Your task to perform on an android device: turn off improve location accuracy Image 0: 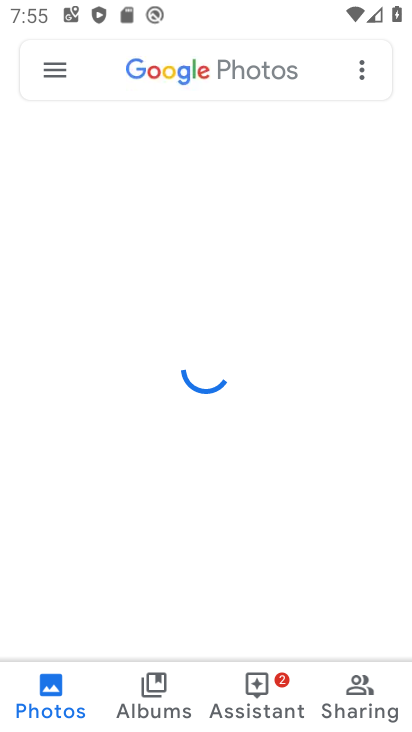
Step 0: press back button
Your task to perform on an android device: turn off improve location accuracy Image 1: 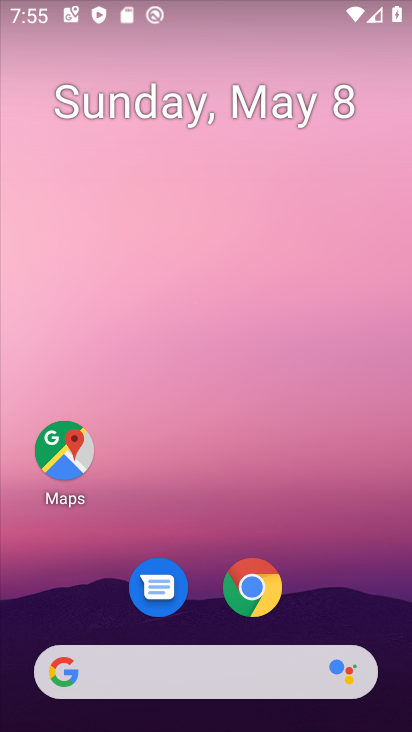
Step 1: drag from (205, 535) to (229, 84)
Your task to perform on an android device: turn off improve location accuracy Image 2: 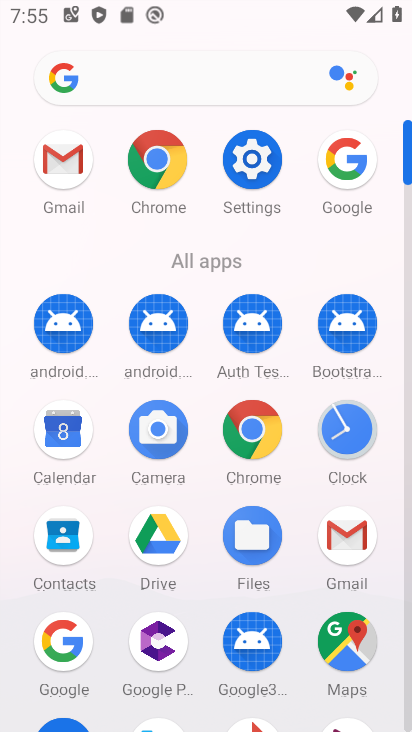
Step 2: click (255, 157)
Your task to perform on an android device: turn off improve location accuracy Image 3: 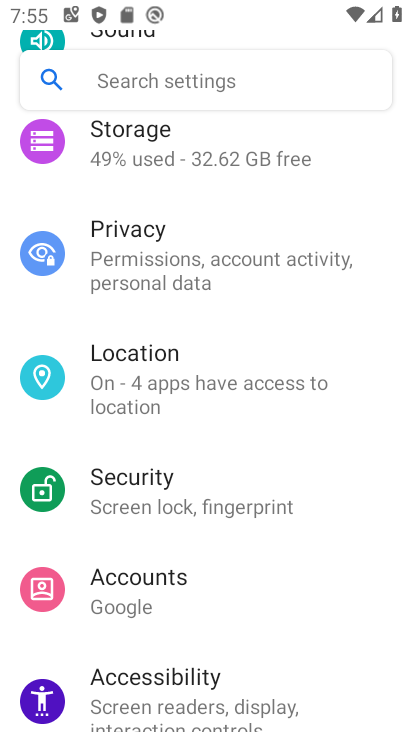
Step 3: click (156, 356)
Your task to perform on an android device: turn off improve location accuracy Image 4: 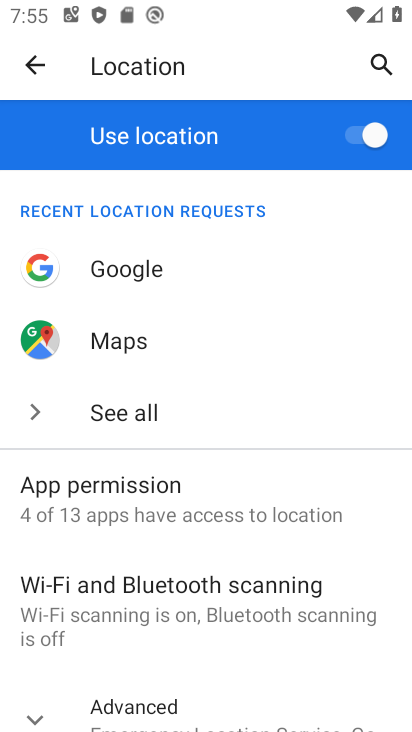
Step 4: drag from (223, 538) to (260, 440)
Your task to perform on an android device: turn off improve location accuracy Image 5: 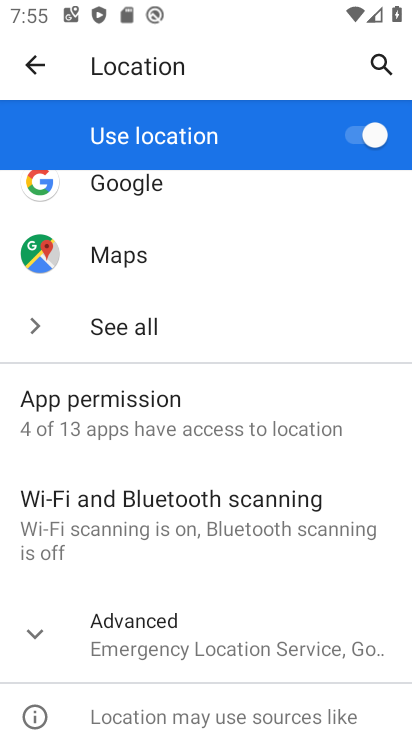
Step 5: click (161, 653)
Your task to perform on an android device: turn off improve location accuracy Image 6: 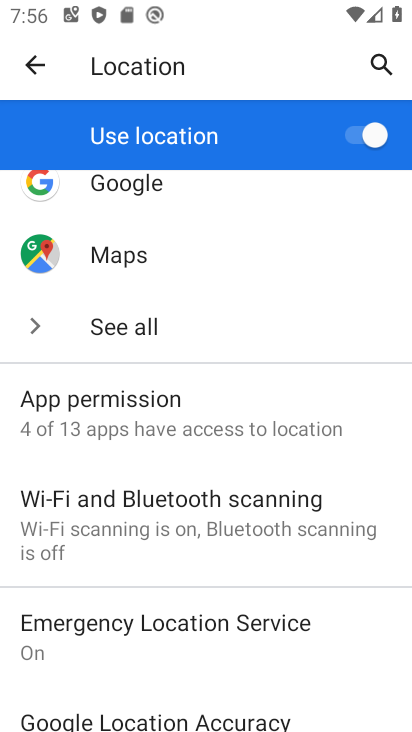
Step 6: drag from (185, 631) to (261, 500)
Your task to perform on an android device: turn off improve location accuracy Image 7: 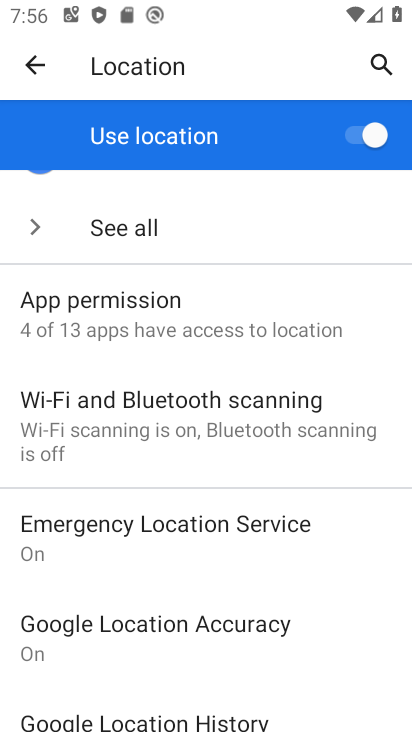
Step 7: click (211, 620)
Your task to perform on an android device: turn off improve location accuracy Image 8: 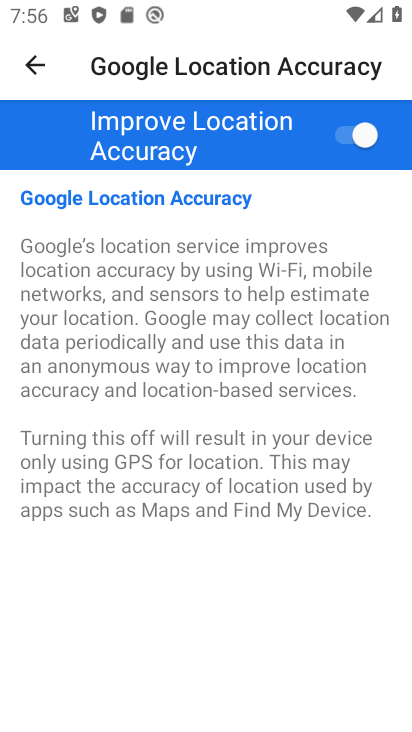
Step 8: click (355, 128)
Your task to perform on an android device: turn off improve location accuracy Image 9: 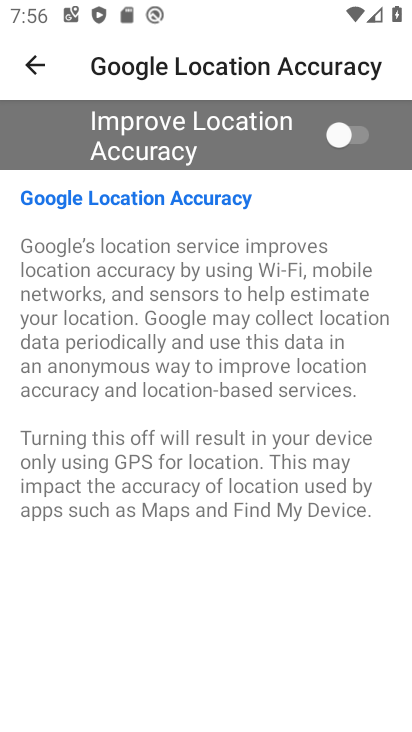
Step 9: task complete